Your task to perform on an android device: toggle notification dots Image 0: 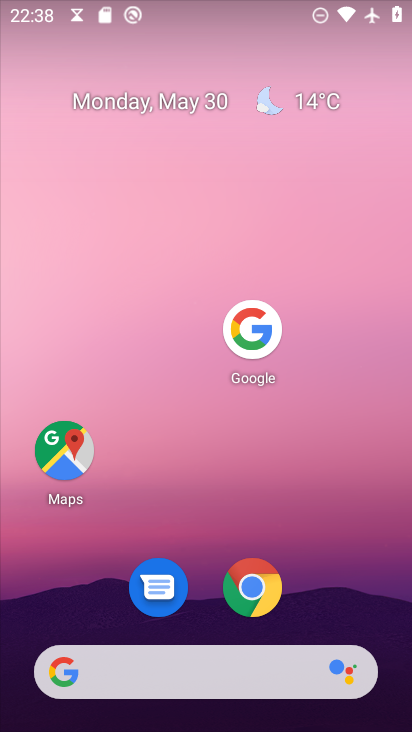
Step 0: drag from (140, 631) to (258, 181)
Your task to perform on an android device: toggle notification dots Image 1: 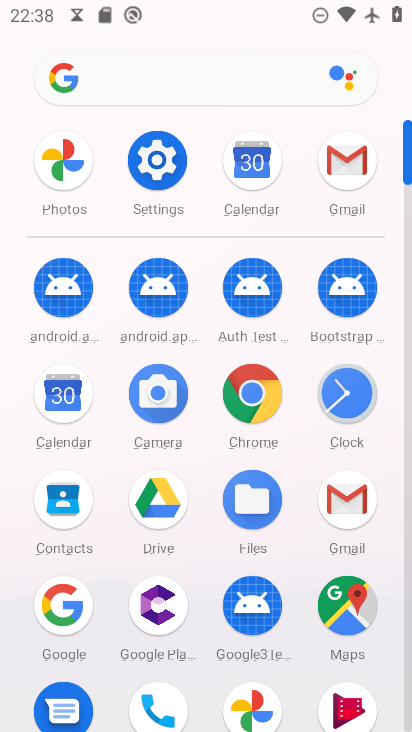
Step 1: click (144, 167)
Your task to perform on an android device: toggle notification dots Image 2: 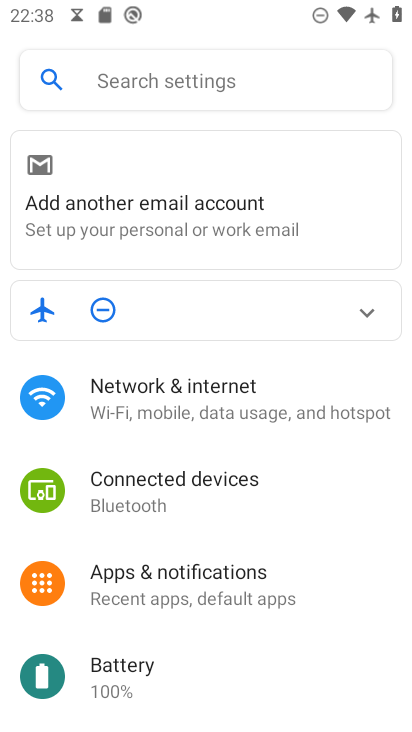
Step 2: click (190, 575)
Your task to perform on an android device: toggle notification dots Image 3: 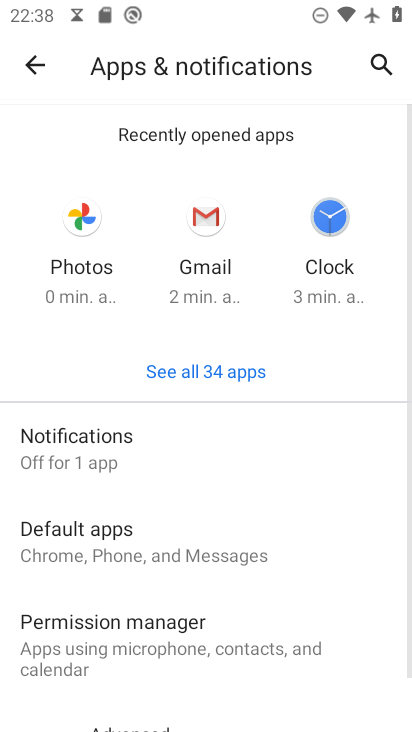
Step 3: click (89, 445)
Your task to perform on an android device: toggle notification dots Image 4: 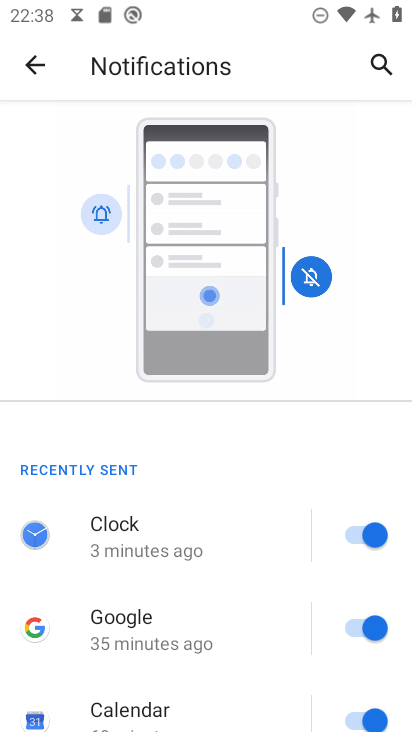
Step 4: drag from (218, 686) to (315, 107)
Your task to perform on an android device: toggle notification dots Image 5: 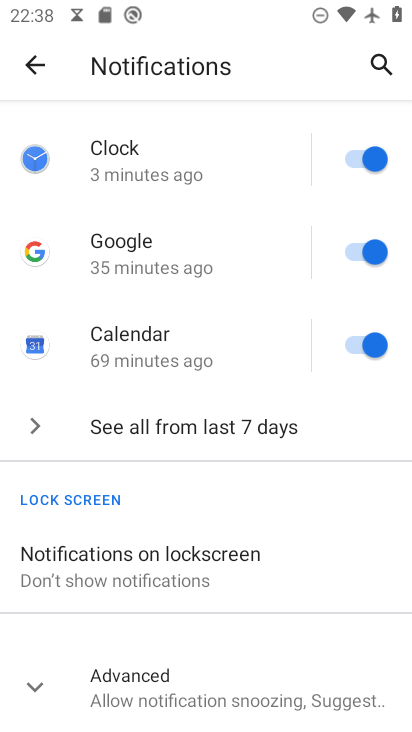
Step 5: click (147, 668)
Your task to perform on an android device: toggle notification dots Image 6: 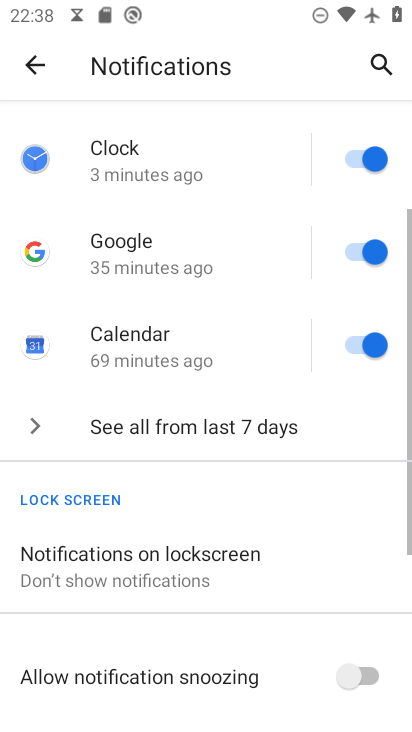
Step 6: drag from (179, 624) to (296, 128)
Your task to perform on an android device: toggle notification dots Image 7: 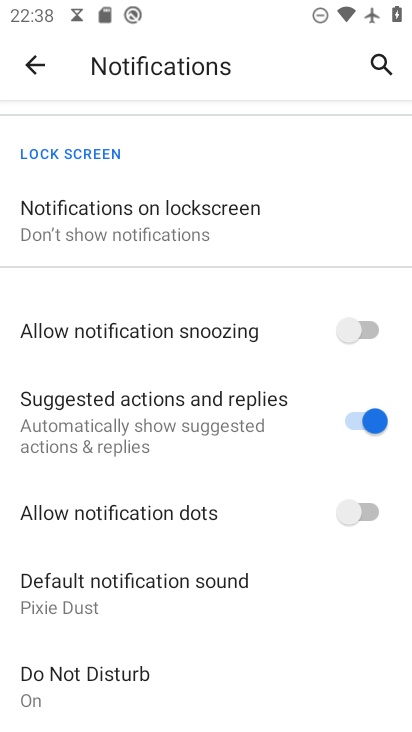
Step 7: click (376, 513)
Your task to perform on an android device: toggle notification dots Image 8: 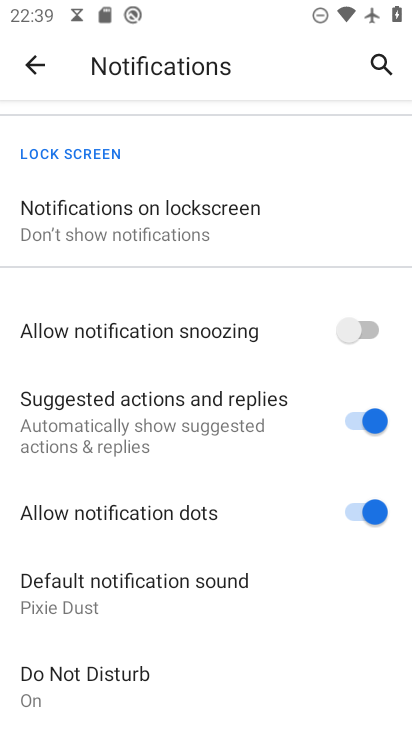
Step 8: task complete